Your task to perform on an android device: stop showing notifications on the lock screen Image 0: 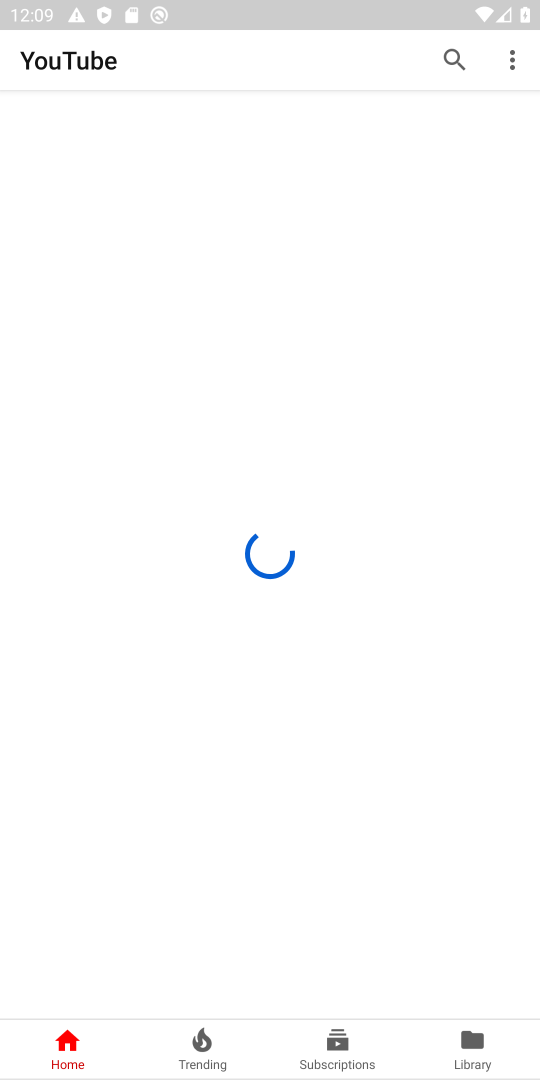
Step 0: press home button
Your task to perform on an android device: stop showing notifications on the lock screen Image 1: 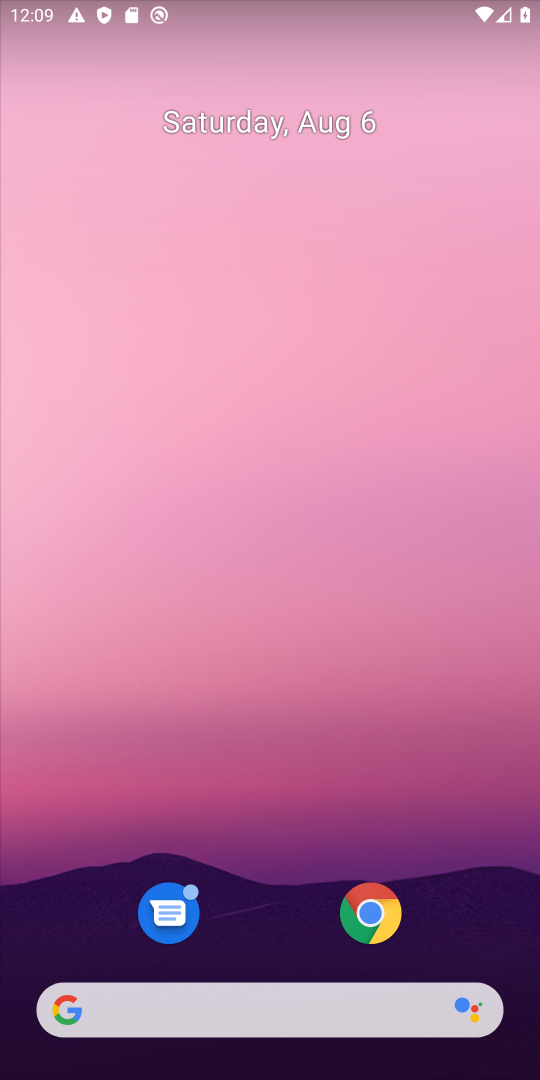
Step 1: drag from (430, 913) to (456, 367)
Your task to perform on an android device: stop showing notifications on the lock screen Image 2: 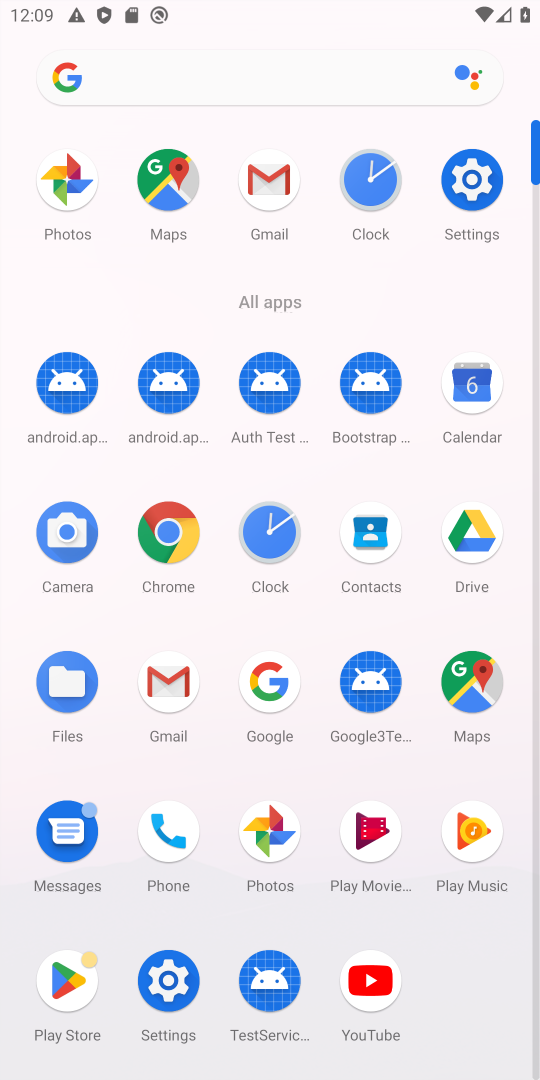
Step 2: click (471, 180)
Your task to perform on an android device: stop showing notifications on the lock screen Image 3: 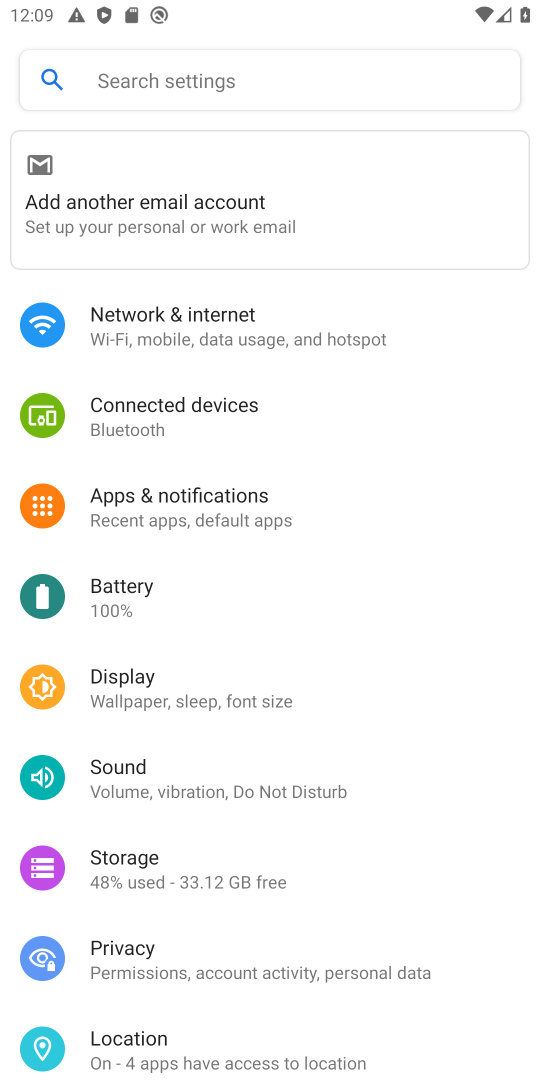
Step 3: drag from (384, 665) to (375, 433)
Your task to perform on an android device: stop showing notifications on the lock screen Image 4: 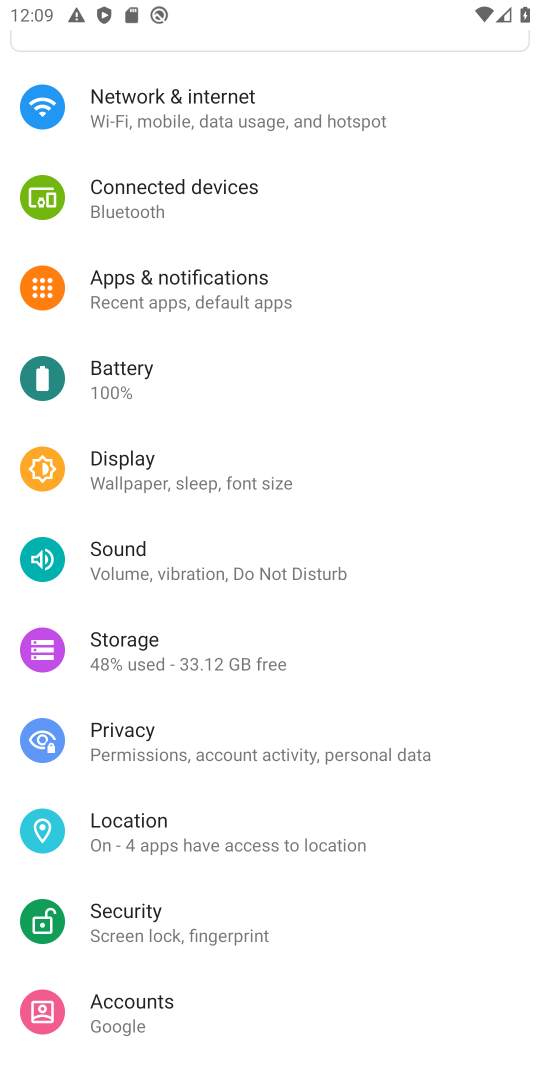
Step 4: drag from (396, 627) to (391, 306)
Your task to perform on an android device: stop showing notifications on the lock screen Image 5: 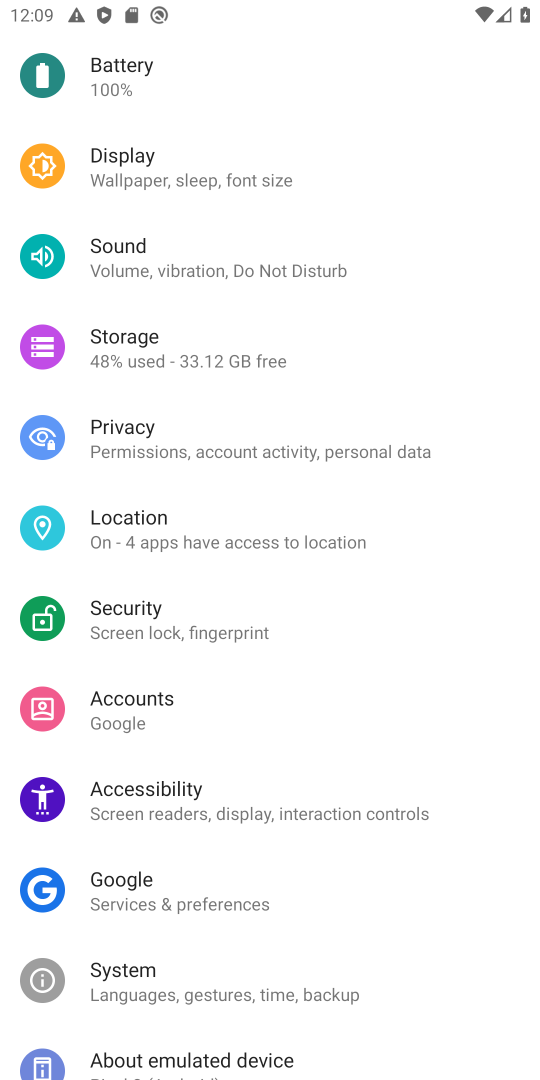
Step 5: drag from (427, 235) to (436, 512)
Your task to perform on an android device: stop showing notifications on the lock screen Image 6: 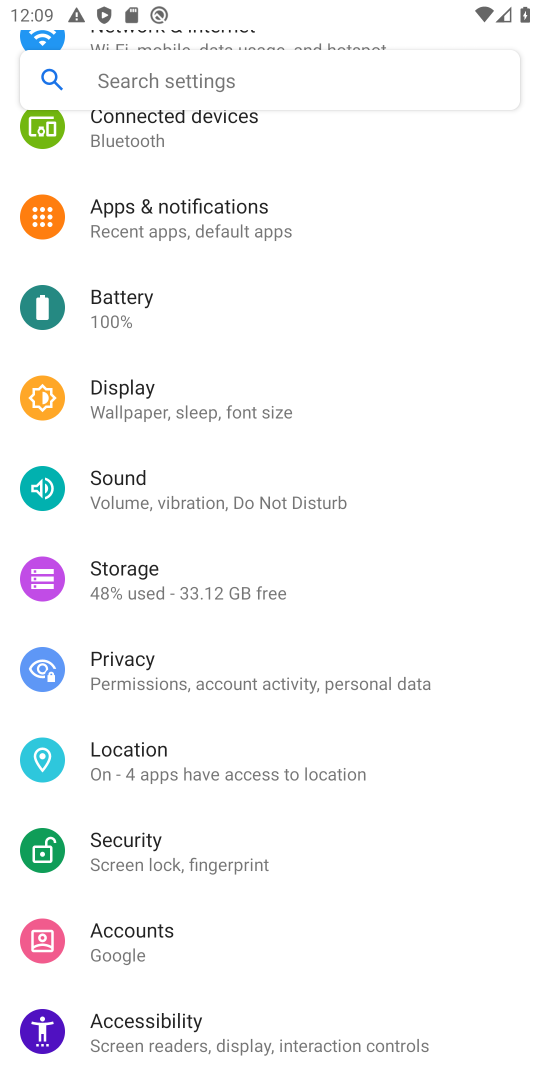
Step 6: drag from (432, 233) to (411, 476)
Your task to perform on an android device: stop showing notifications on the lock screen Image 7: 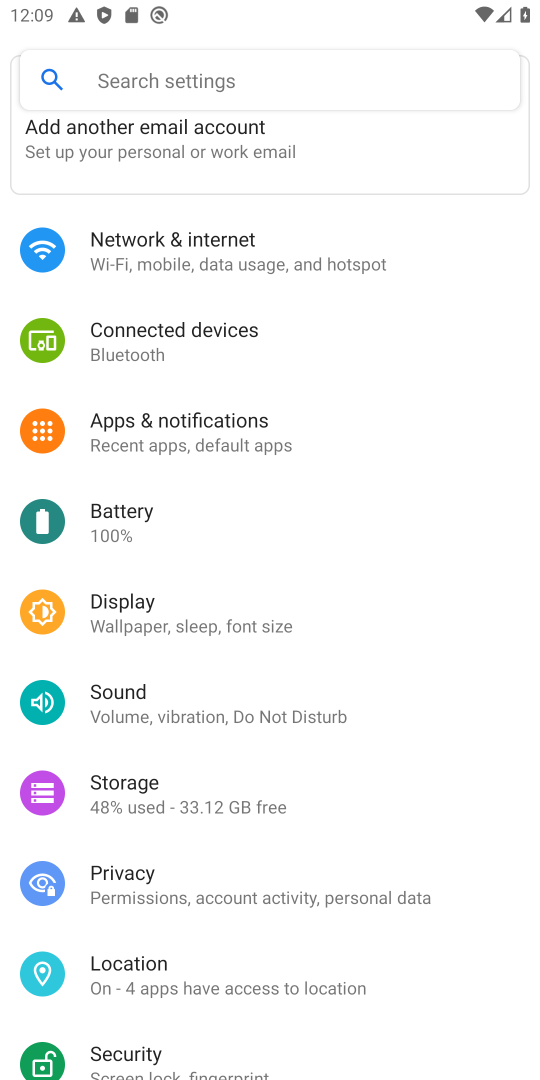
Step 7: drag from (445, 333) to (431, 630)
Your task to perform on an android device: stop showing notifications on the lock screen Image 8: 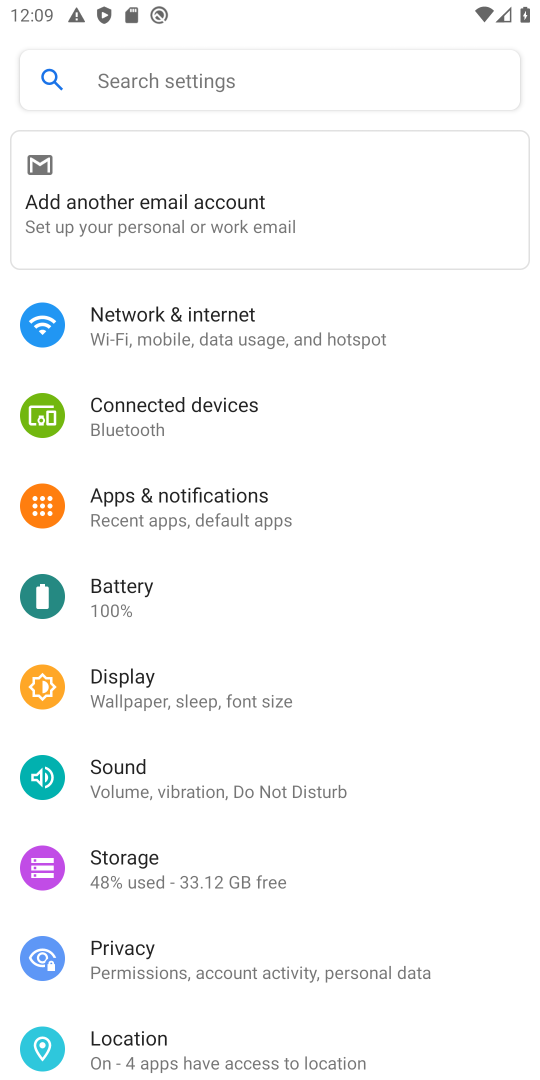
Step 8: drag from (409, 439) to (200, 491)
Your task to perform on an android device: stop showing notifications on the lock screen Image 9: 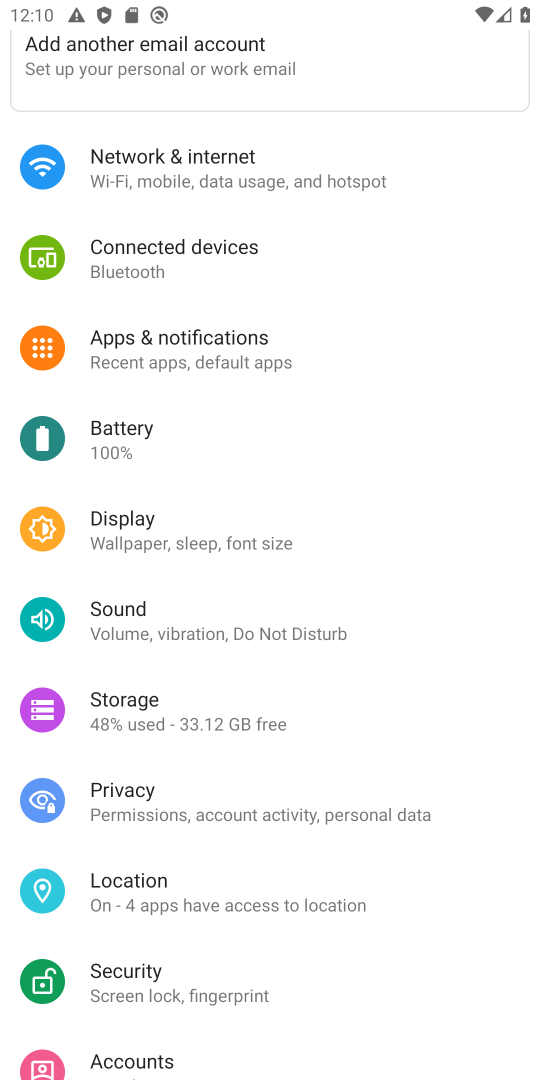
Step 9: click (206, 361)
Your task to perform on an android device: stop showing notifications on the lock screen Image 10: 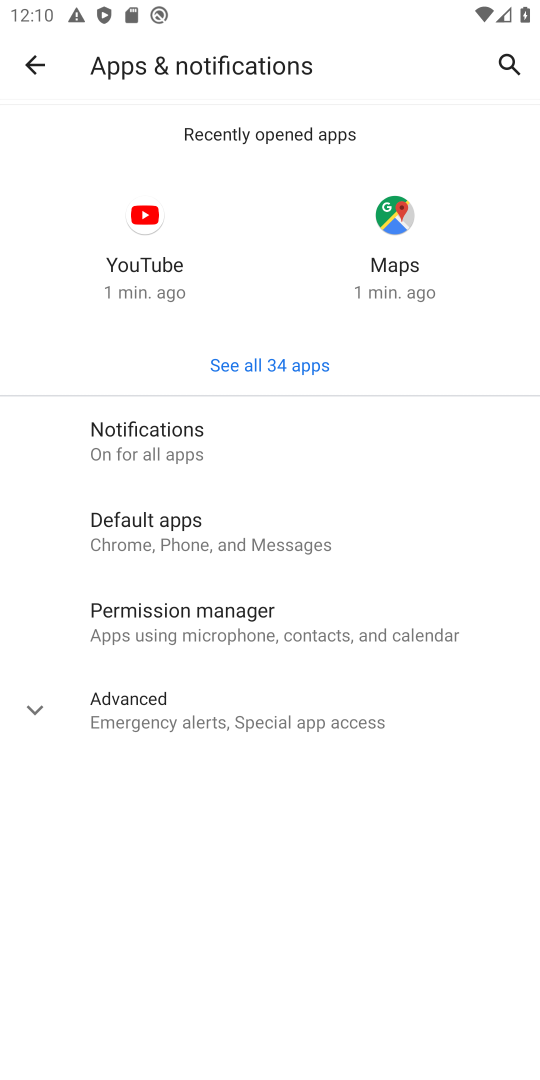
Step 10: click (243, 430)
Your task to perform on an android device: stop showing notifications on the lock screen Image 11: 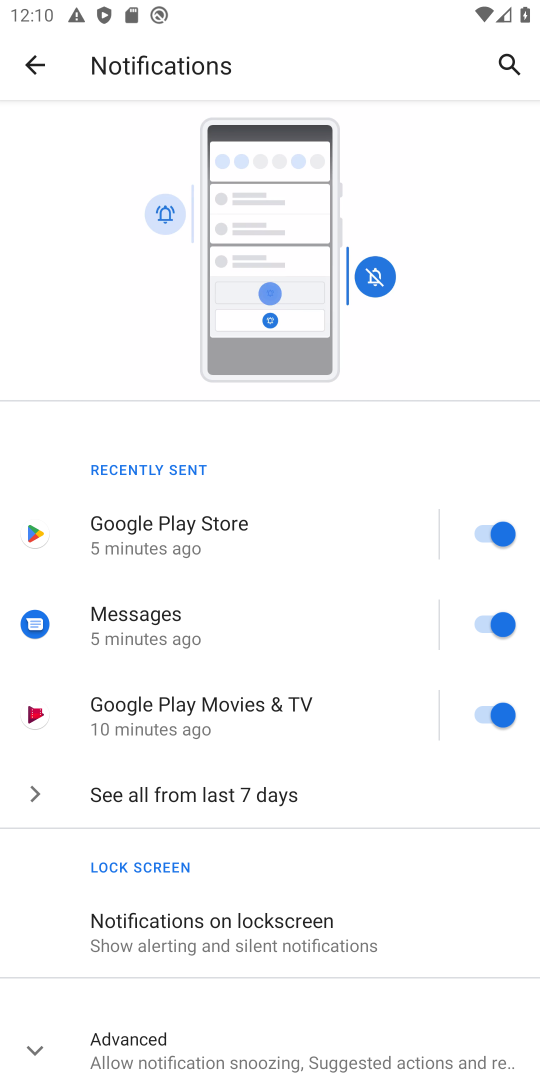
Step 11: click (318, 943)
Your task to perform on an android device: stop showing notifications on the lock screen Image 12: 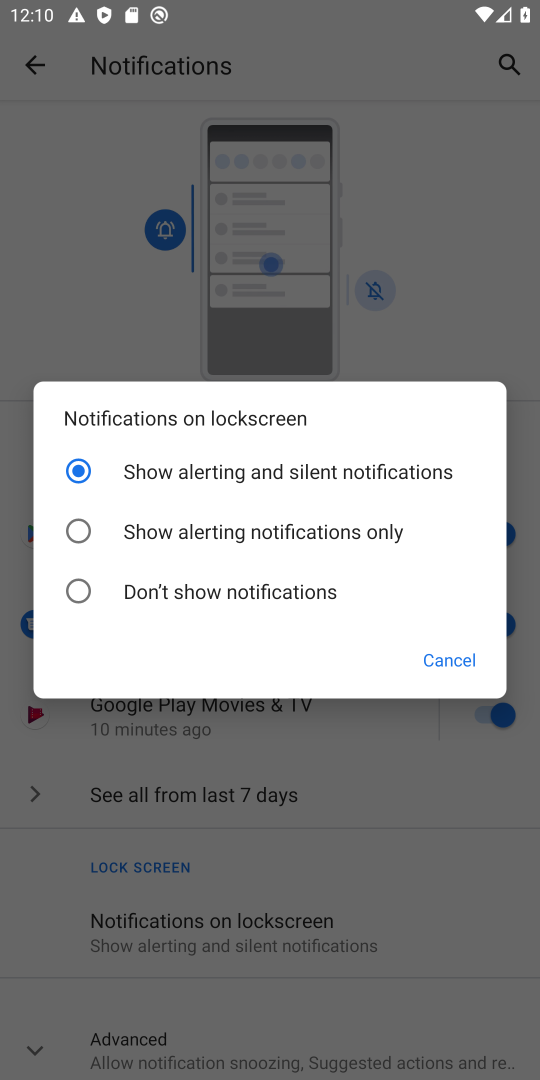
Step 12: click (219, 588)
Your task to perform on an android device: stop showing notifications on the lock screen Image 13: 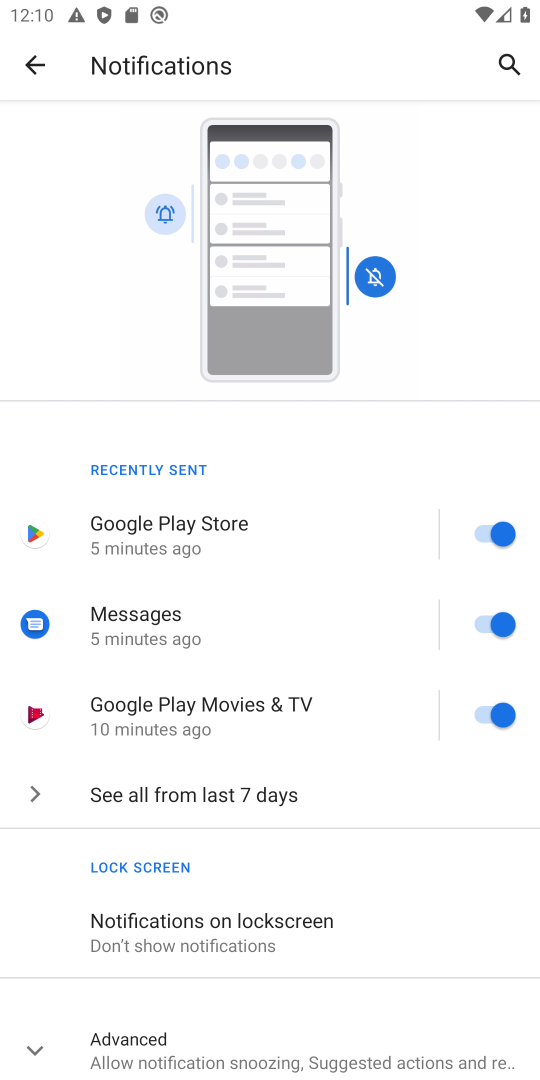
Step 13: task complete